Your task to perform on an android device: Open Wikipedia Image 0: 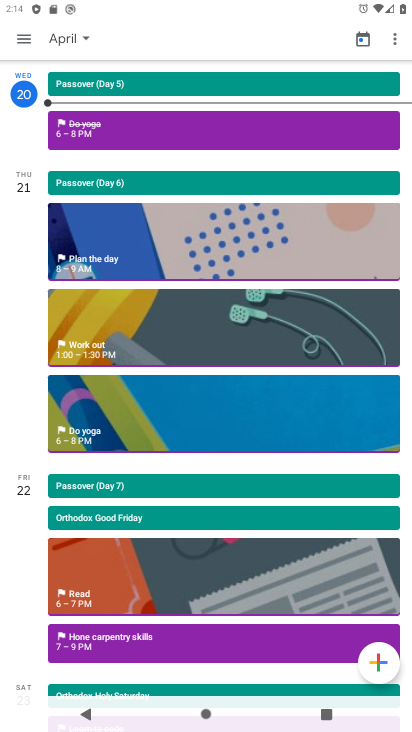
Step 0: press home button
Your task to perform on an android device: Open Wikipedia Image 1: 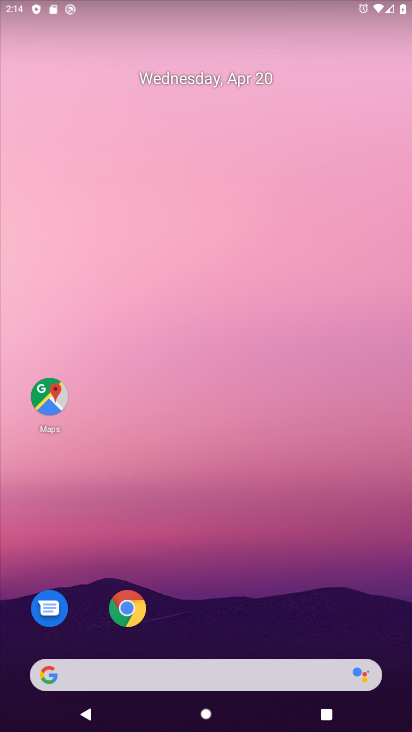
Step 1: click (129, 594)
Your task to perform on an android device: Open Wikipedia Image 2: 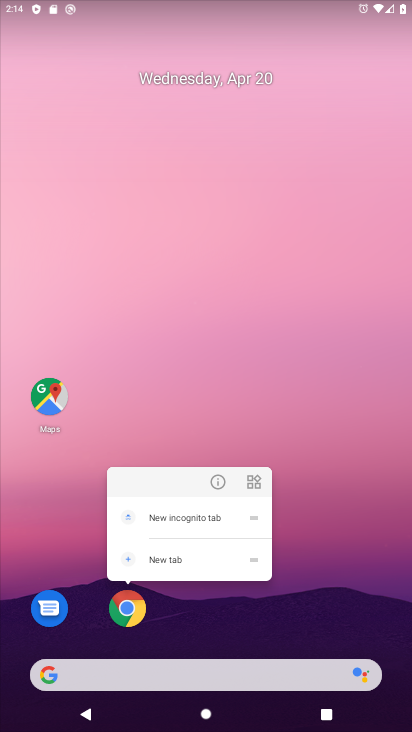
Step 2: click (131, 595)
Your task to perform on an android device: Open Wikipedia Image 3: 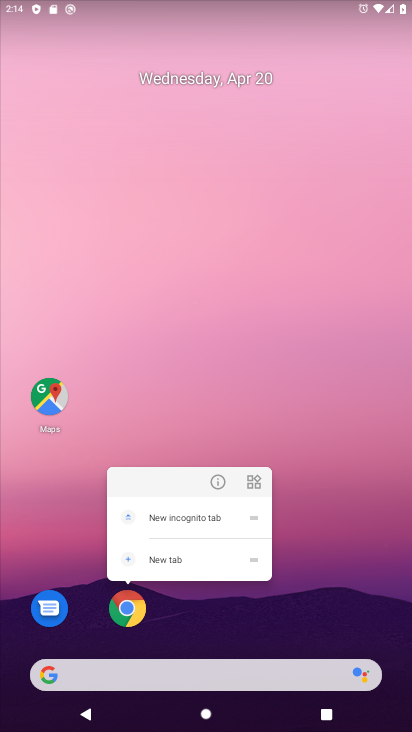
Step 3: click (131, 602)
Your task to perform on an android device: Open Wikipedia Image 4: 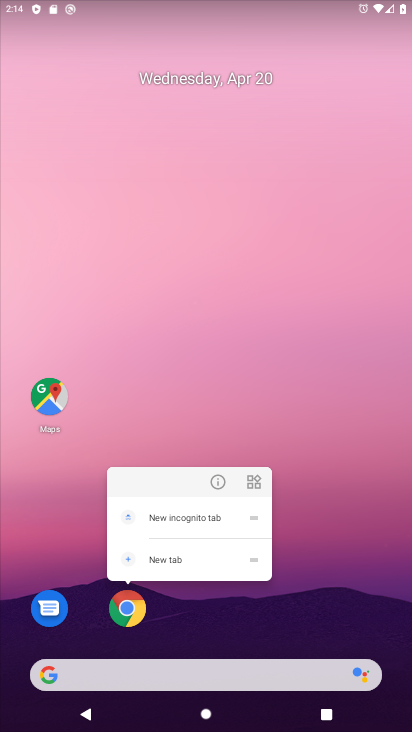
Step 4: click (132, 600)
Your task to perform on an android device: Open Wikipedia Image 5: 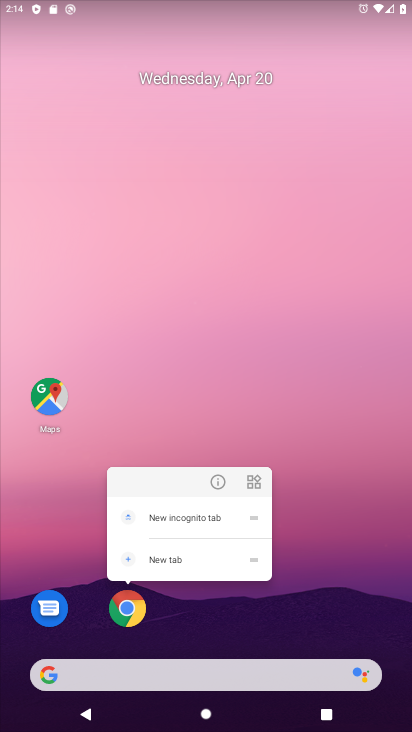
Step 5: click (128, 605)
Your task to perform on an android device: Open Wikipedia Image 6: 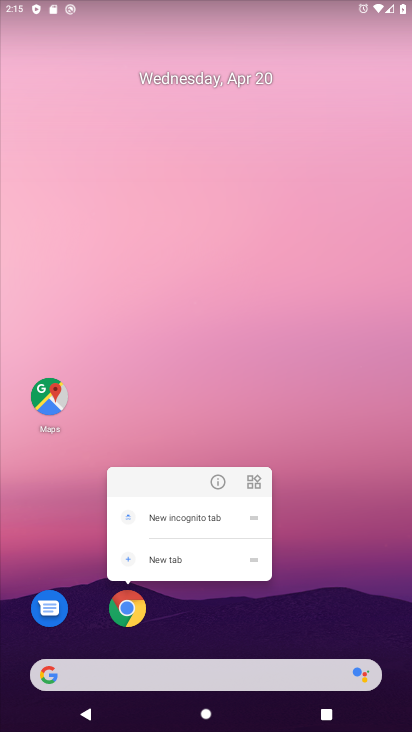
Step 6: click (128, 605)
Your task to perform on an android device: Open Wikipedia Image 7: 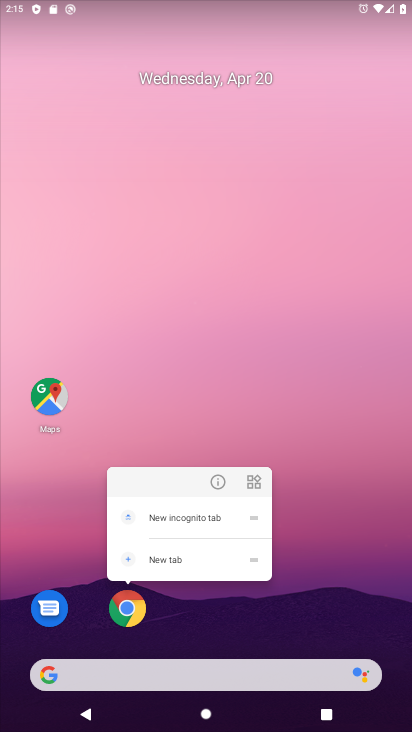
Step 7: click (128, 605)
Your task to perform on an android device: Open Wikipedia Image 8: 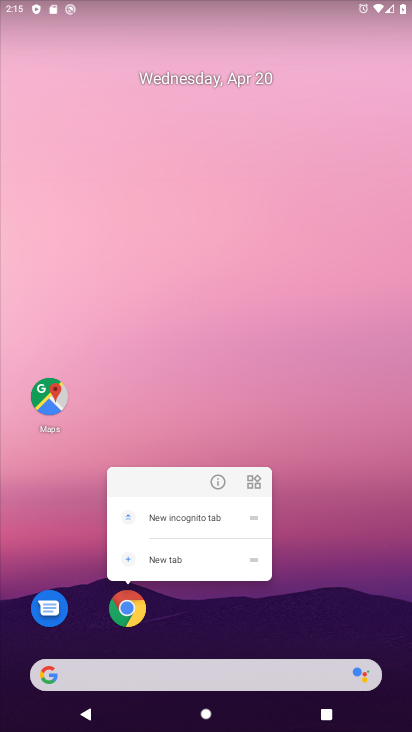
Step 8: click (121, 597)
Your task to perform on an android device: Open Wikipedia Image 9: 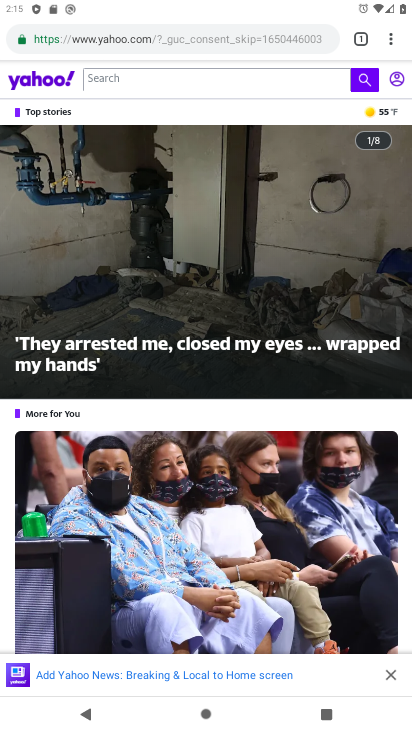
Step 9: click (257, 31)
Your task to perform on an android device: Open Wikipedia Image 10: 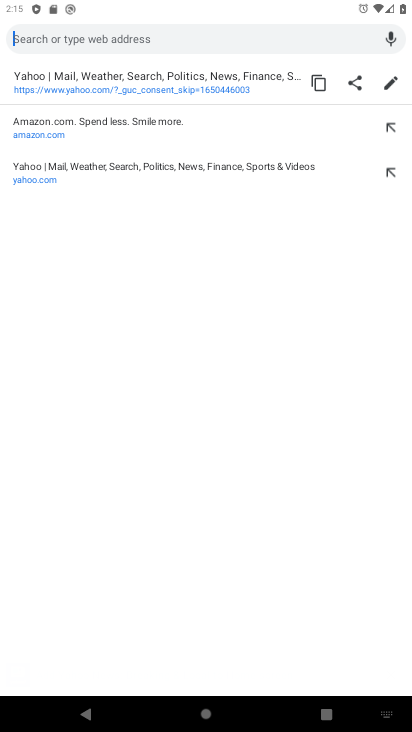
Step 10: type "wikipedia"
Your task to perform on an android device: Open Wikipedia Image 11: 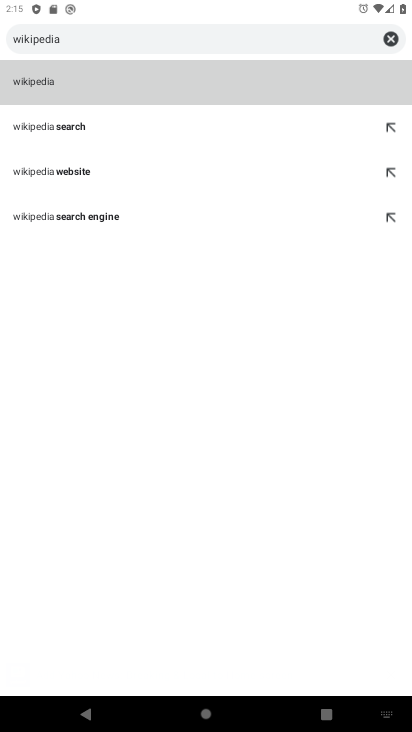
Step 11: drag from (391, 111) to (186, 67)
Your task to perform on an android device: Open Wikipedia Image 12: 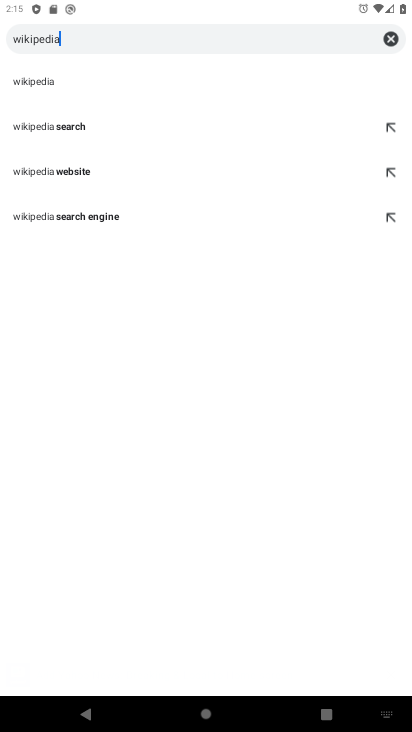
Step 12: click (391, 111)
Your task to perform on an android device: Open Wikipedia Image 13: 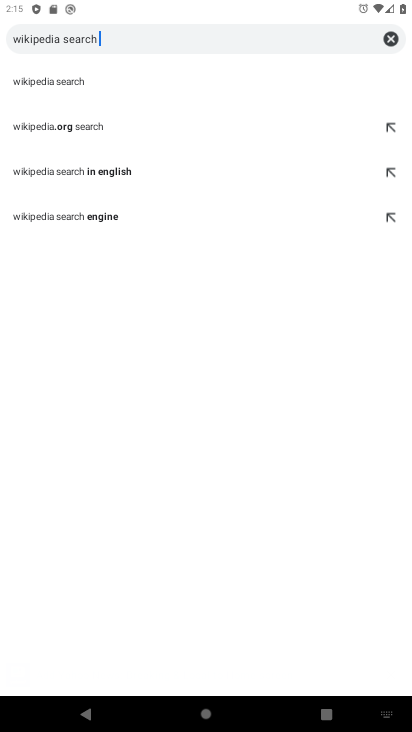
Step 13: click (64, 86)
Your task to perform on an android device: Open Wikipedia Image 14: 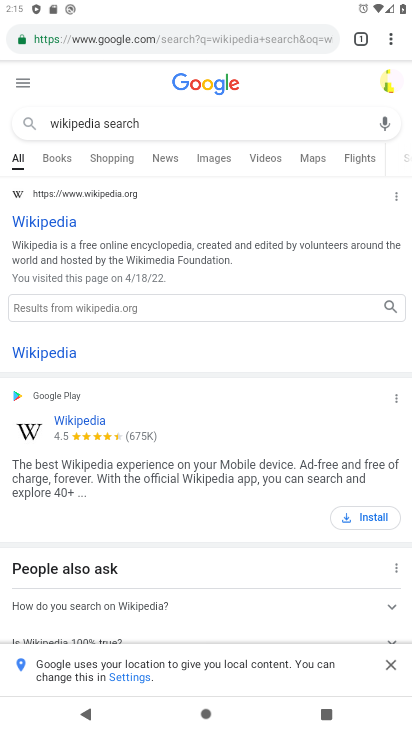
Step 14: click (25, 219)
Your task to perform on an android device: Open Wikipedia Image 15: 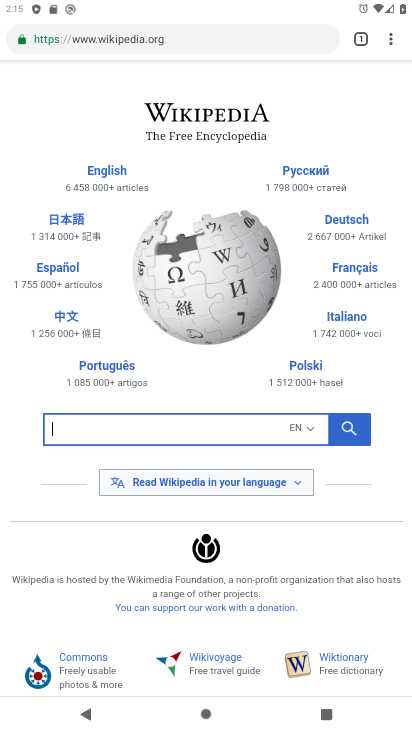
Step 15: task complete